Your task to perform on an android device: refresh tabs in the chrome app Image 0: 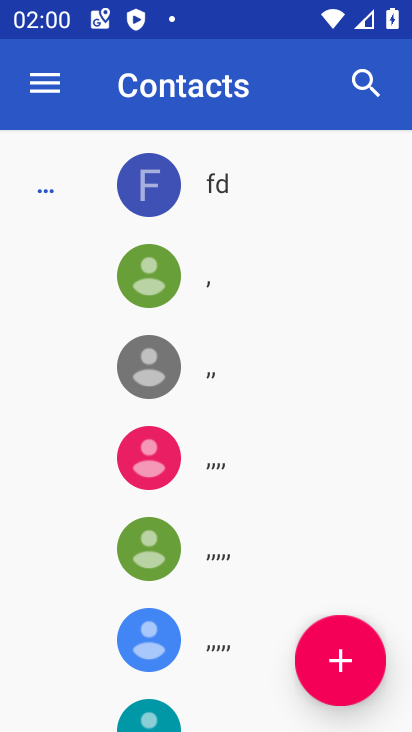
Step 0: press home button
Your task to perform on an android device: refresh tabs in the chrome app Image 1: 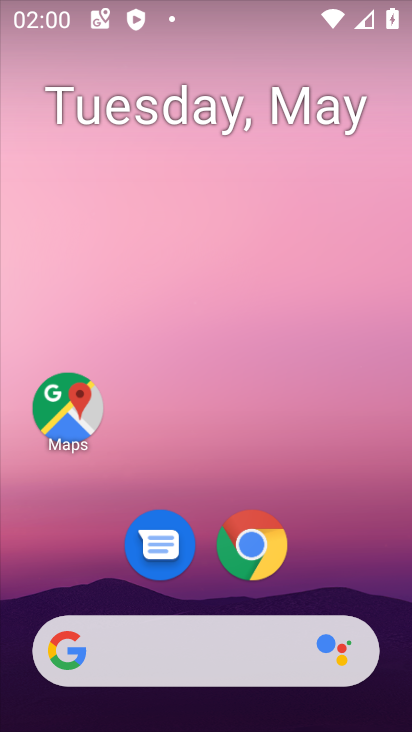
Step 1: click (249, 549)
Your task to perform on an android device: refresh tabs in the chrome app Image 2: 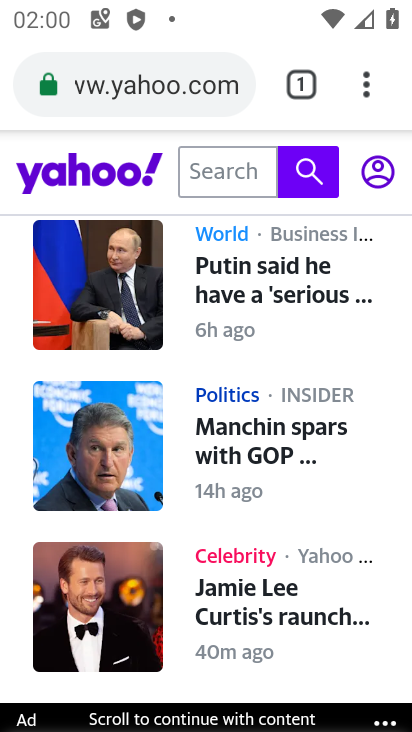
Step 2: click (361, 91)
Your task to perform on an android device: refresh tabs in the chrome app Image 3: 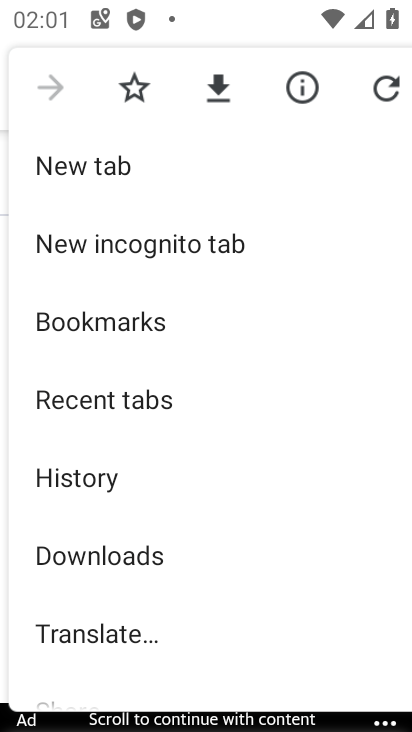
Step 3: click (384, 85)
Your task to perform on an android device: refresh tabs in the chrome app Image 4: 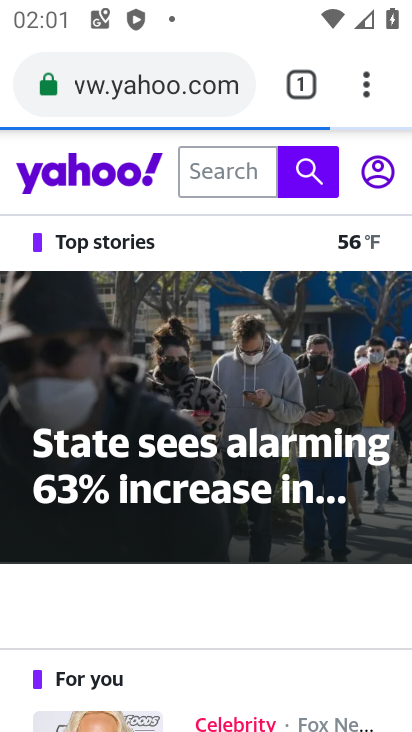
Step 4: task complete